Your task to perform on an android device: What is the news today? Image 0: 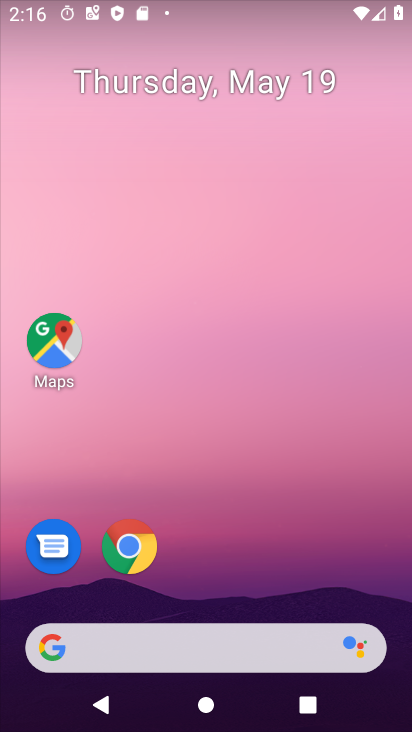
Step 0: click (145, 657)
Your task to perform on an android device: What is the news today? Image 1: 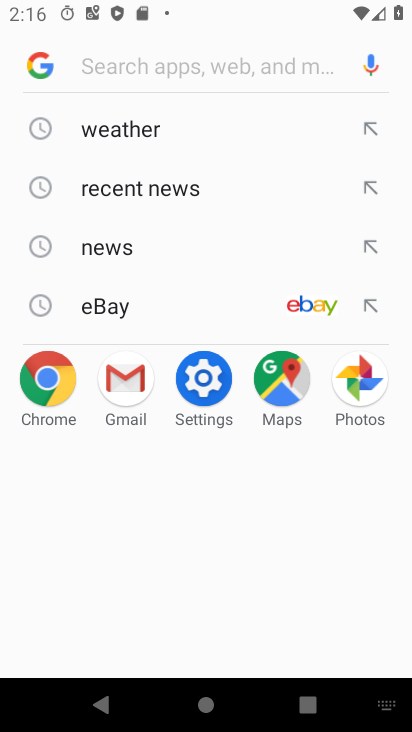
Step 1: click (131, 225)
Your task to perform on an android device: What is the news today? Image 2: 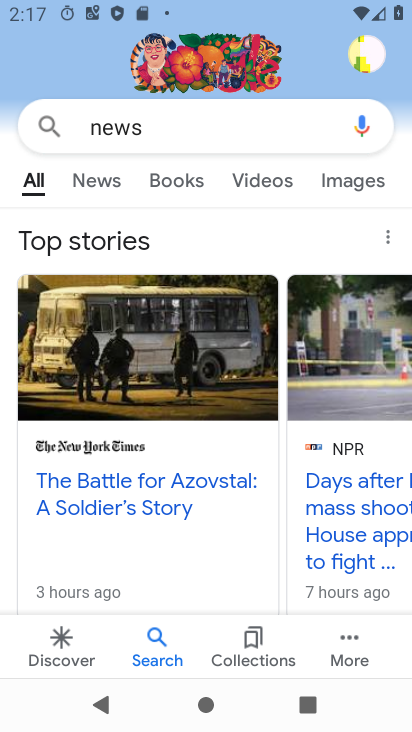
Step 2: task complete